Your task to perform on an android device: turn off wifi Image 0: 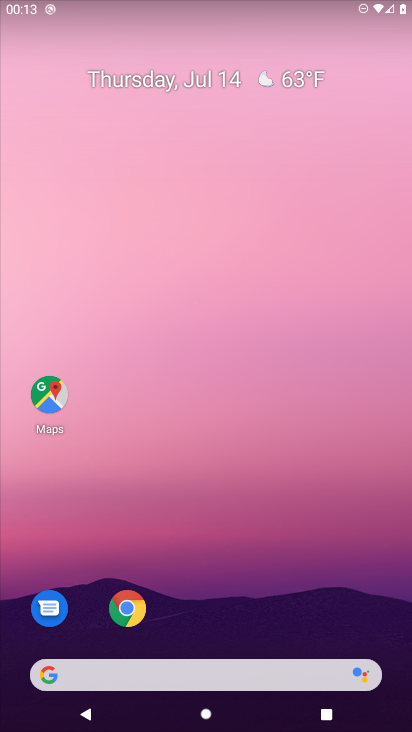
Step 0: click (208, 637)
Your task to perform on an android device: turn off wifi Image 1: 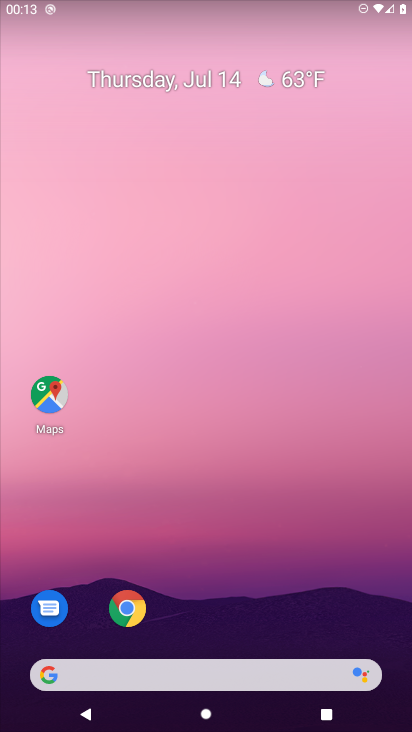
Step 1: drag from (182, 4) to (253, 454)
Your task to perform on an android device: turn off wifi Image 2: 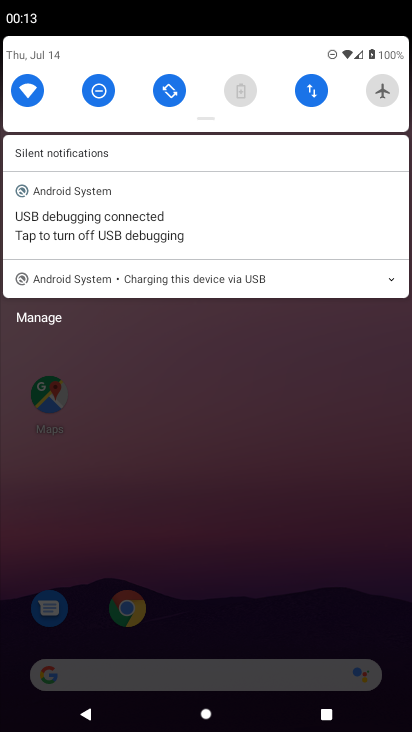
Step 2: click (29, 107)
Your task to perform on an android device: turn off wifi Image 3: 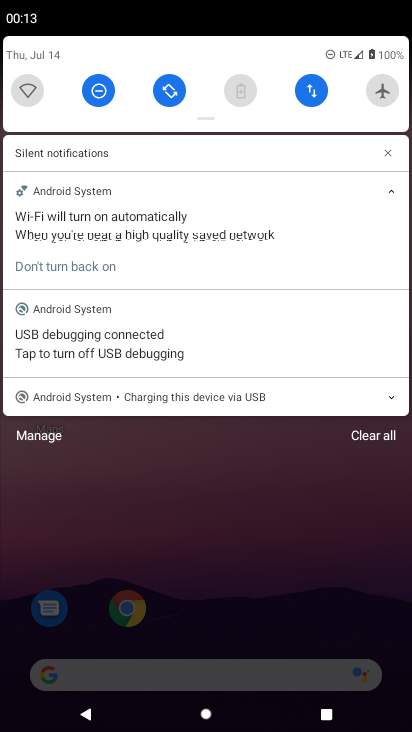
Step 3: task complete